Your task to perform on an android device: Open eBay Image 0: 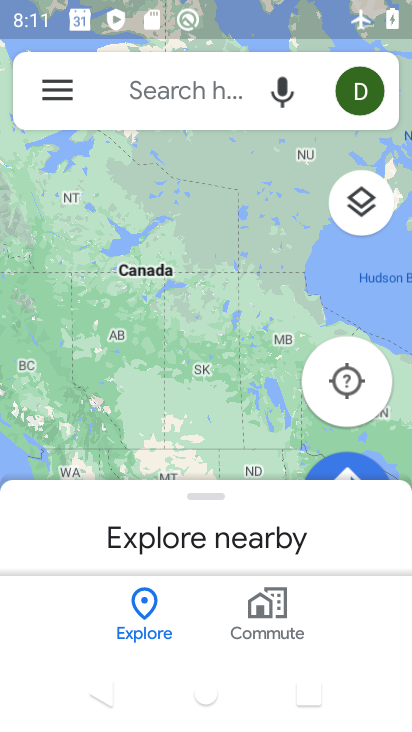
Step 0: drag from (227, 475) to (349, 14)
Your task to perform on an android device: Open eBay Image 1: 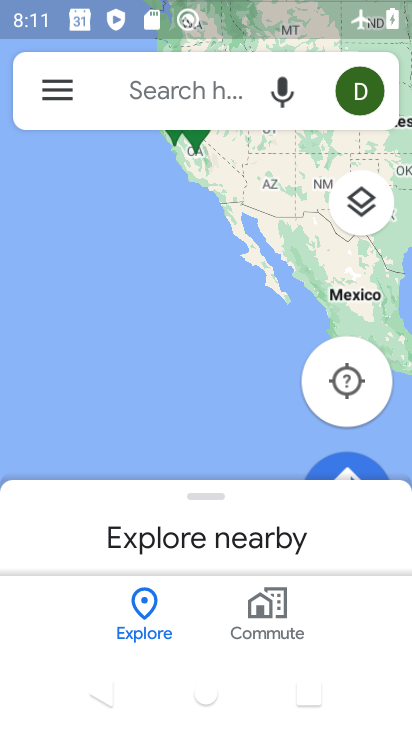
Step 1: press home button
Your task to perform on an android device: Open eBay Image 2: 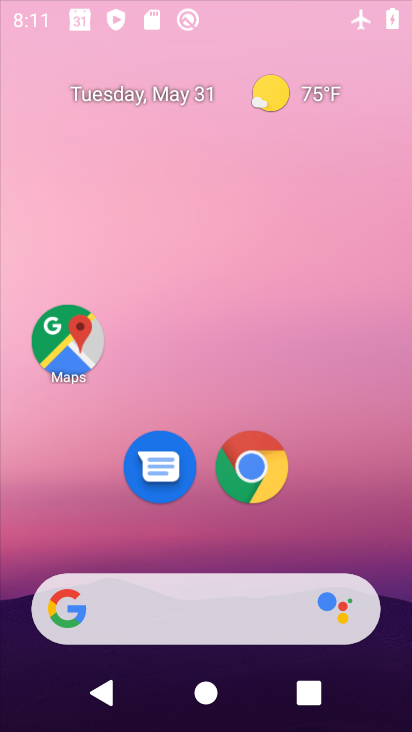
Step 2: drag from (232, 458) to (324, 95)
Your task to perform on an android device: Open eBay Image 3: 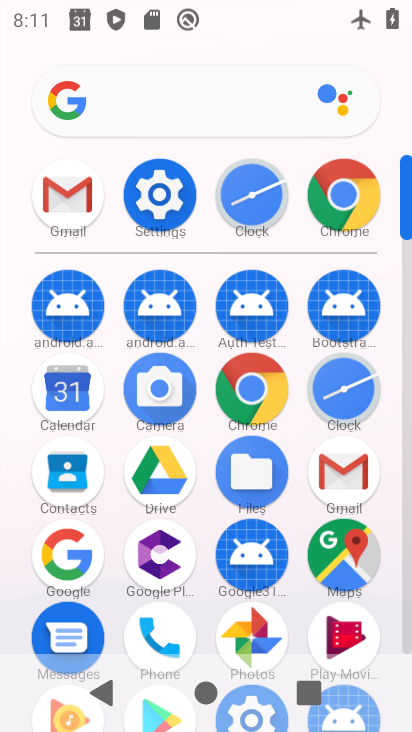
Step 3: click (131, 93)
Your task to perform on an android device: Open eBay Image 4: 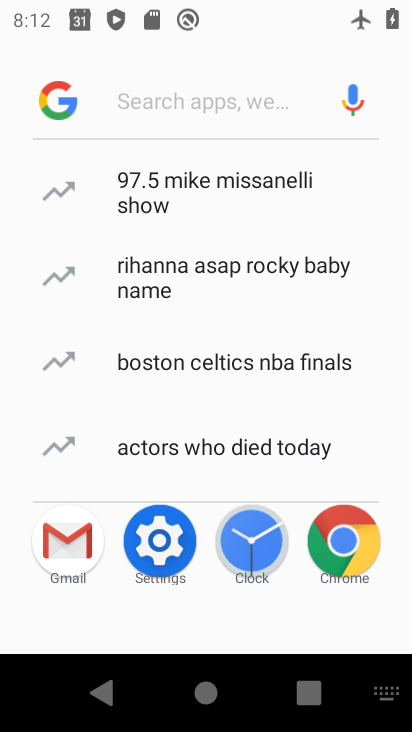
Step 4: click (122, 83)
Your task to perform on an android device: Open eBay Image 5: 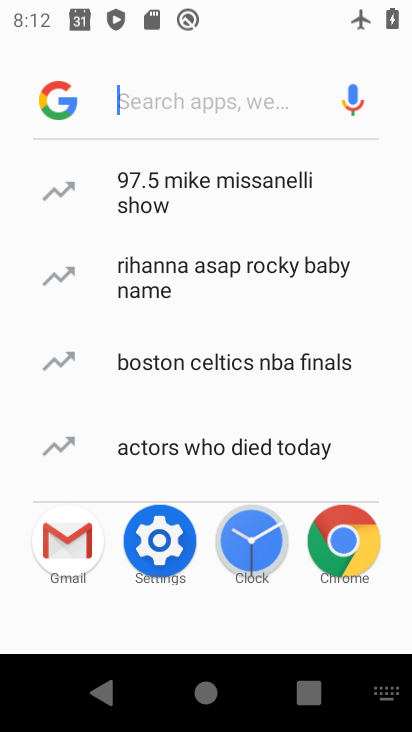
Step 5: type "eBay"
Your task to perform on an android device: Open eBay Image 6: 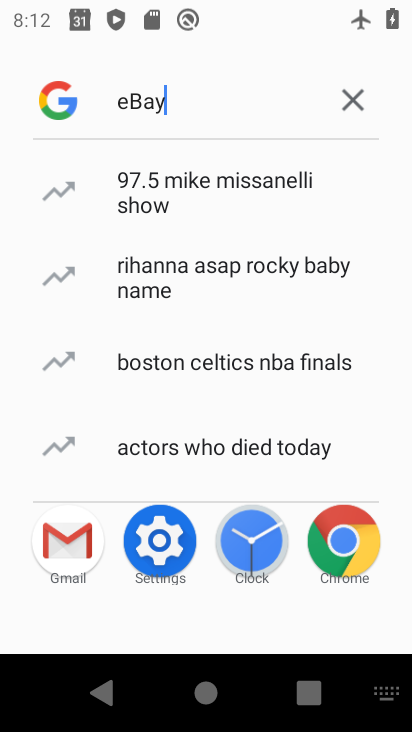
Step 6: type ""
Your task to perform on an android device: Open eBay Image 7: 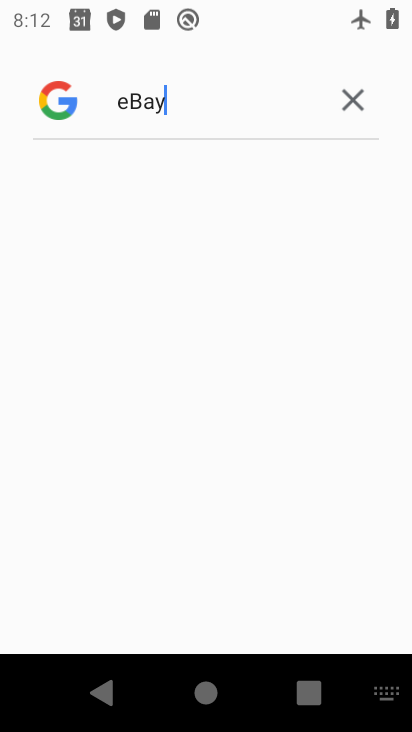
Step 7: task complete